Your task to perform on an android device: change the clock display to show seconds Image 0: 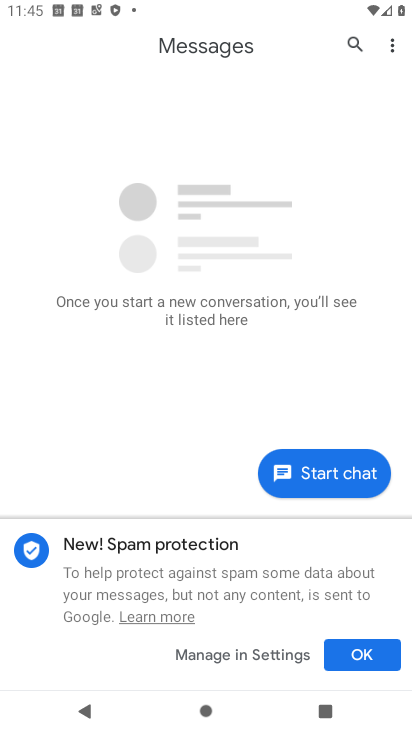
Step 0: press home button
Your task to perform on an android device: change the clock display to show seconds Image 1: 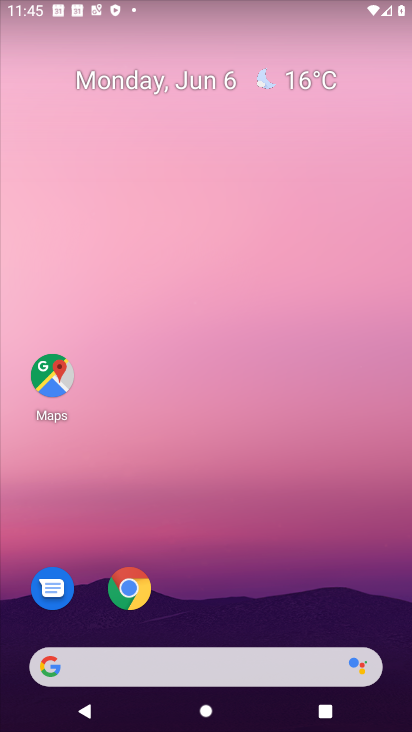
Step 1: drag from (231, 646) to (283, 177)
Your task to perform on an android device: change the clock display to show seconds Image 2: 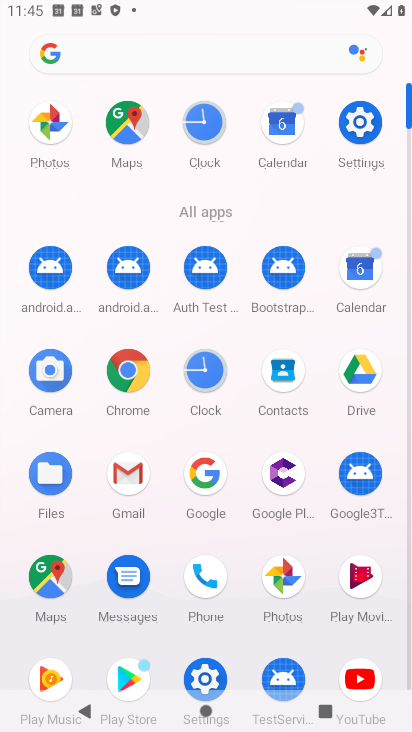
Step 2: click (210, 366)
Your task to perform on an android device: change the clock display to show seconds Image 3: 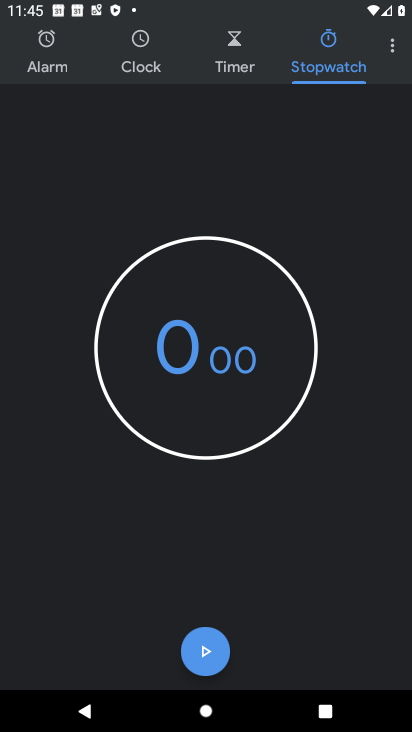
Step 3: click (390, 44)
Your task to perform on an android device: change the clock display to show seconds Image 4: 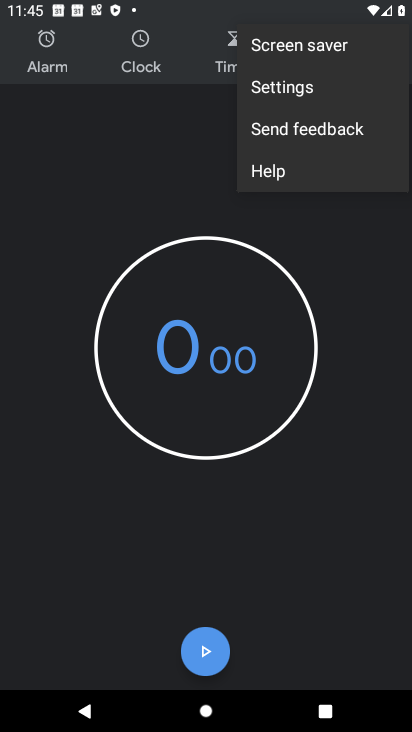
Step 4: click (314, 79)
Your task to perform on an android device: change the clock display to show seconds Image 5: 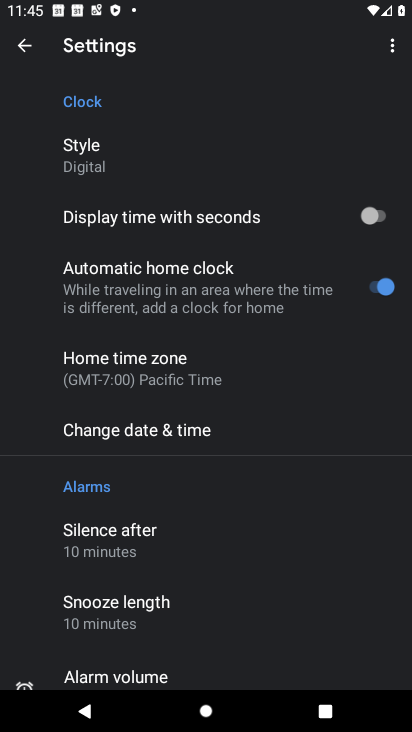
Step 5: click (366, 221)
Your task to perform on an android device: change the clock display to show seconds Image 6: 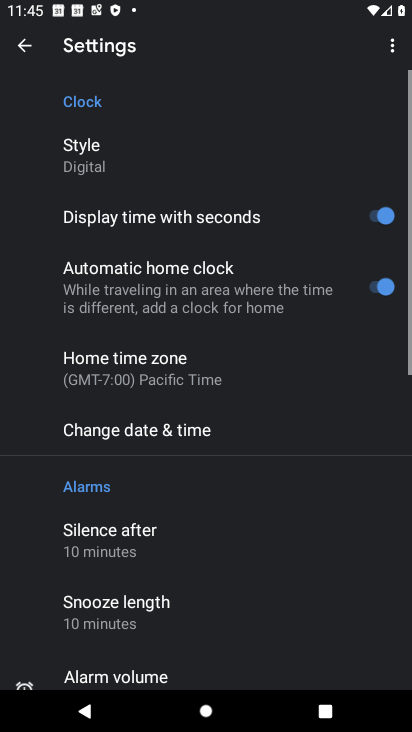
Step 6: task complete